Your task to perform on an android device: snooze an email in the gmail app Image 0: 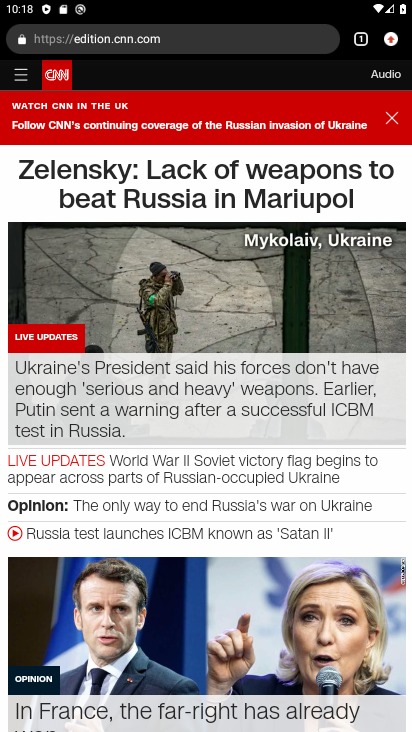
Step 0: press home button
Your task to perform on an android device: snooze an email in the gmail app Image 1: 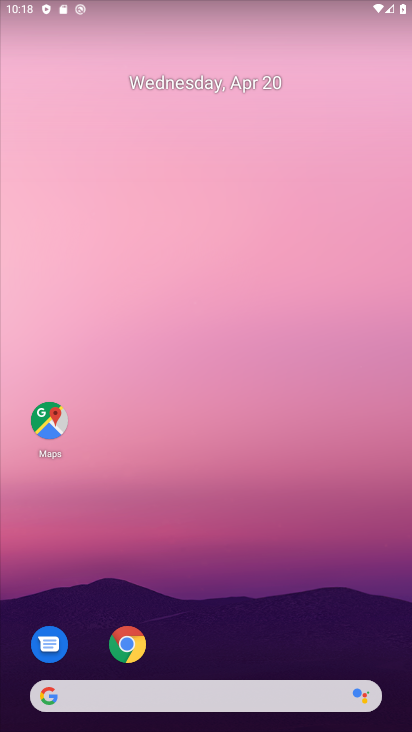
Step 1: drag from (203, 415) to (221, 37)
Your task to perform on an android device: snooze an email in the gmail app Image 2: 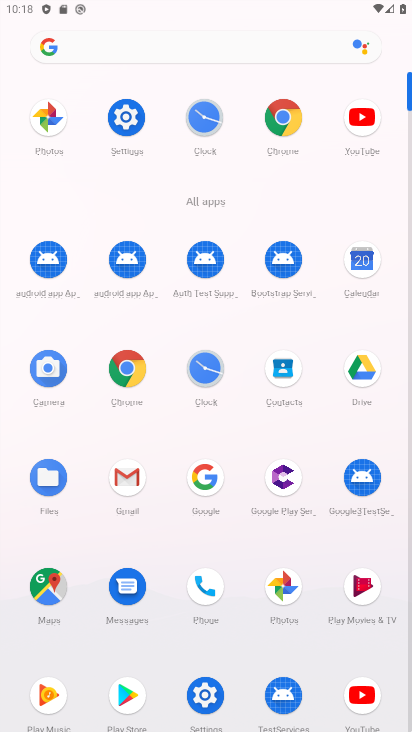
Step 2: click (130, 480)
Your task to perform on an android device: snooze an email in the gmail app Image 3: 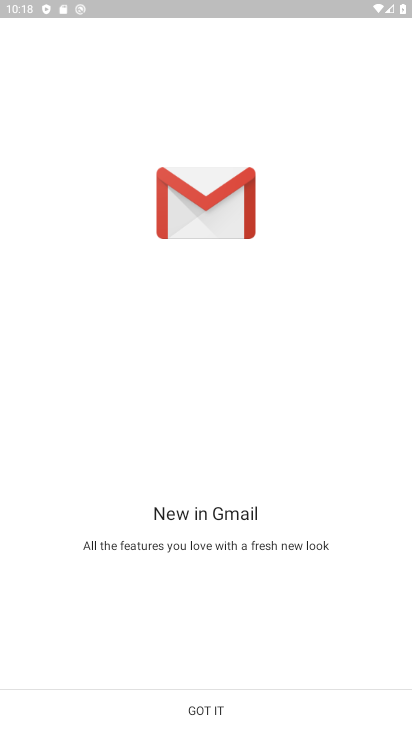
Step 3: click (186, 706)
Your task to perform on an android device: snooze an email in the gmail app Image 4: 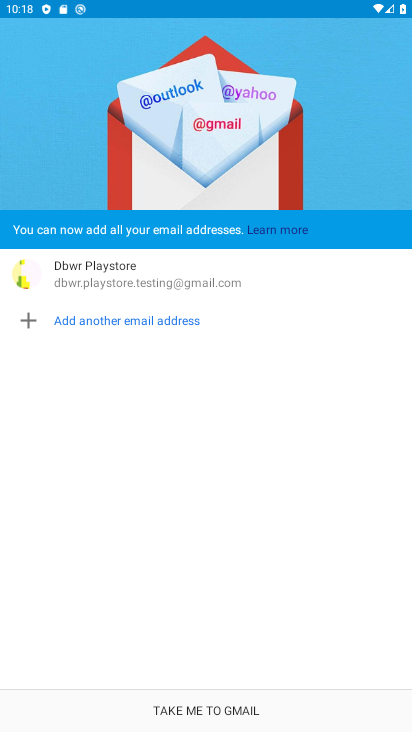
Step 4: click (186, 706)
Your task to perform on an android device: snooze an email in the gmail app Image 5: 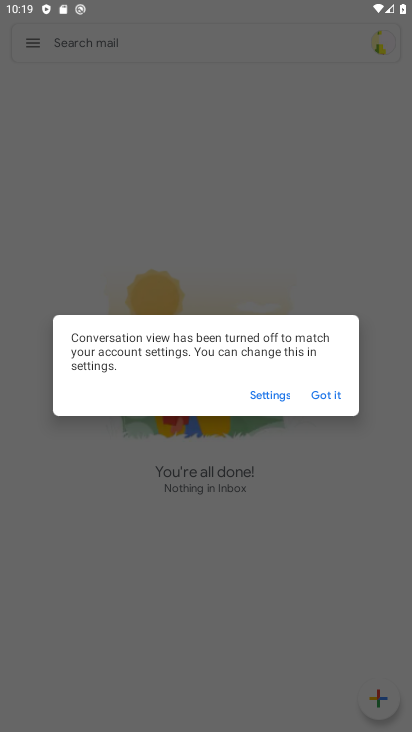
Step 5: click (325, 394)
Your task to perform on an android device: snooze an email in the gmail app Image 6: 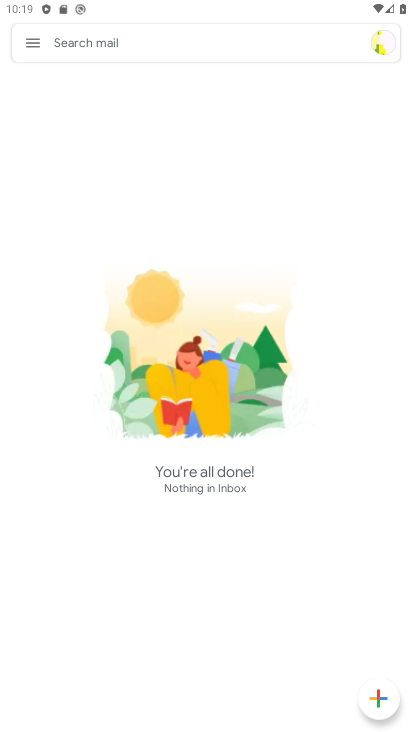
Step 6: click (39, 44)
Your task to perform on an android device: snooze an email in the gmail app Image 7: 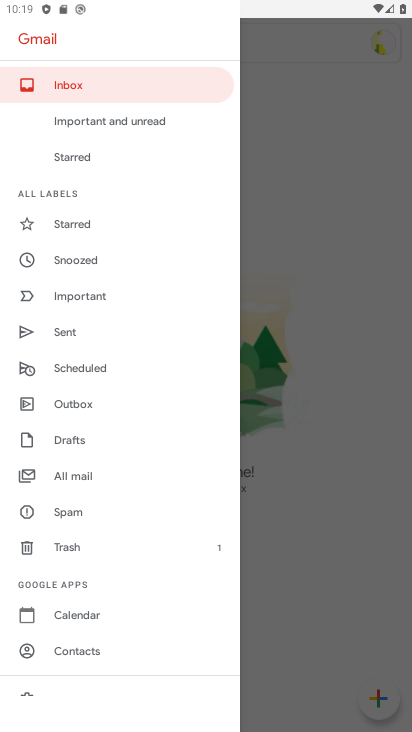
Step 7: click (276, 413)
Your task to perform on an android device: snooze an email in the gmail app Image 8: 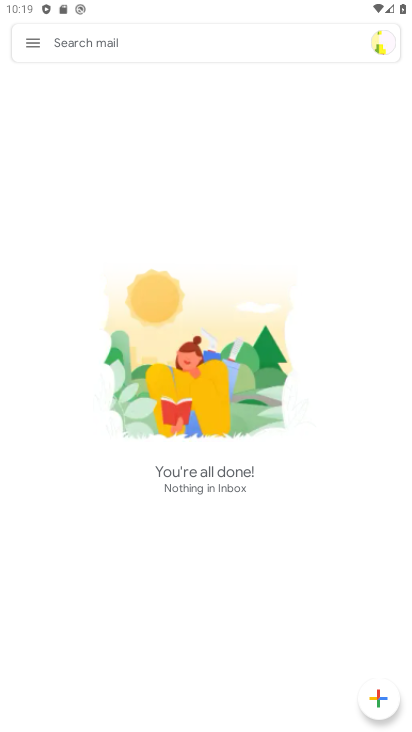
Step 8: task complete